Your task to perform on an android device: clear history in the chrome app Image 0: 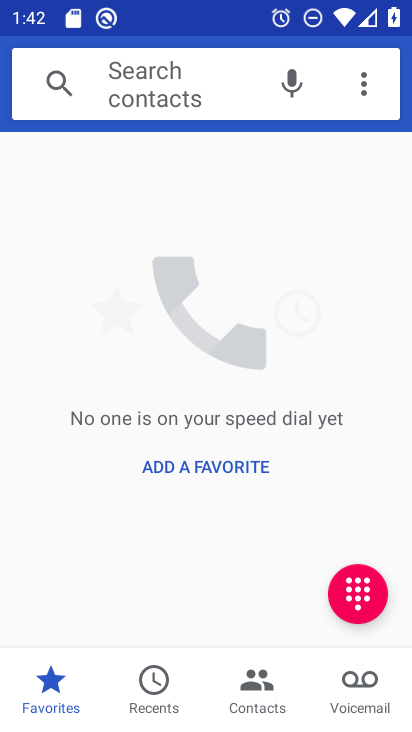
Step 0: press home button
Your task to perform on an android device: clear history in the chrome app Image 1: 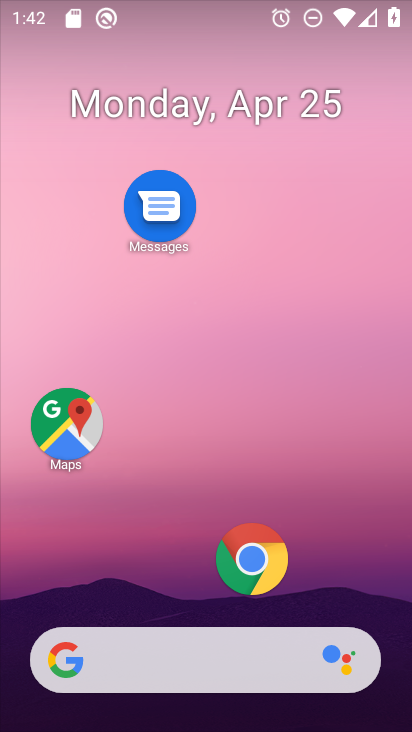
Step 1: click (254, 554)
Your task to perform on an android device: clear history in the chrome app Image 2: 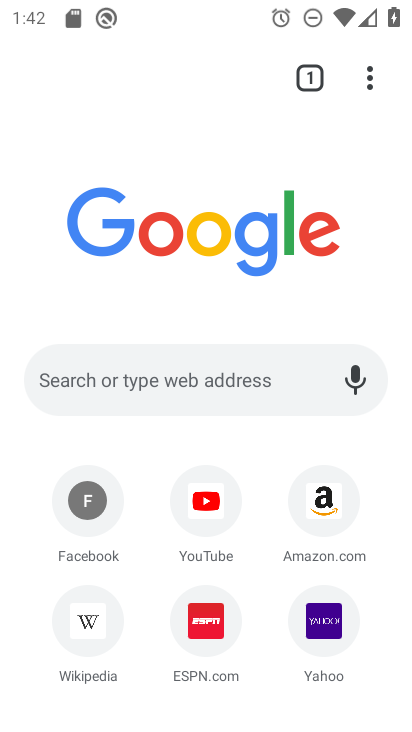
Step 2: click (362, 80)
Your task to perform on an android device: clear history in the chrome app Image 3: 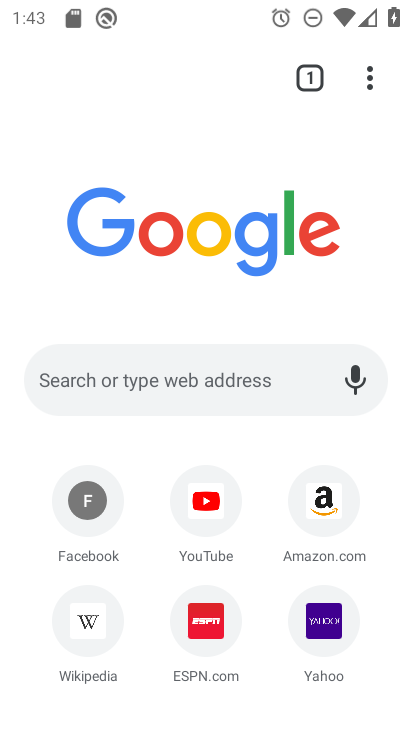
Step 3: click (362, 80)
Your task to perform on an android device: clear history in the chrome app Image 4: 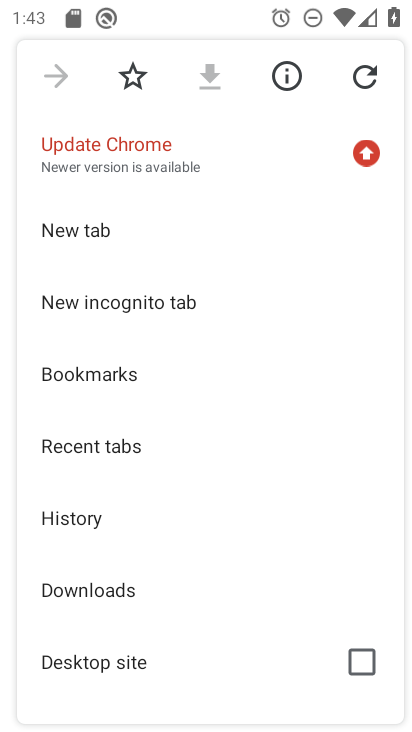
Step 4: click (145, 520)
Your task to perform on an android device: clear history in the chrome app Image 5: 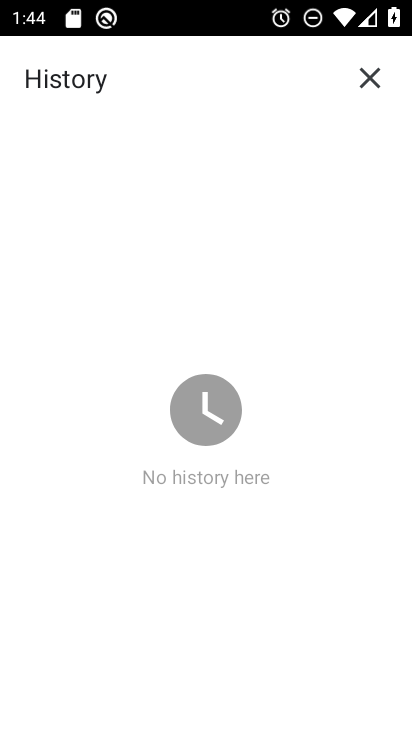
Step 5: task complete